Your task to perform on an android device: toggle sleep mode Image 0: 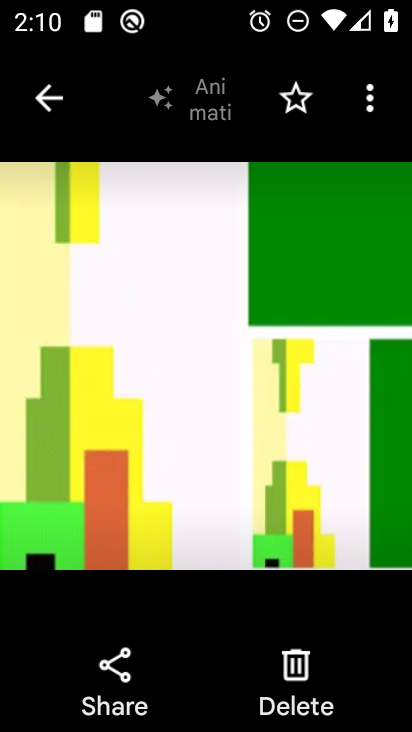
Step 0: press home button
Your task to perform on an android device: toggle sleep mode Image 1: 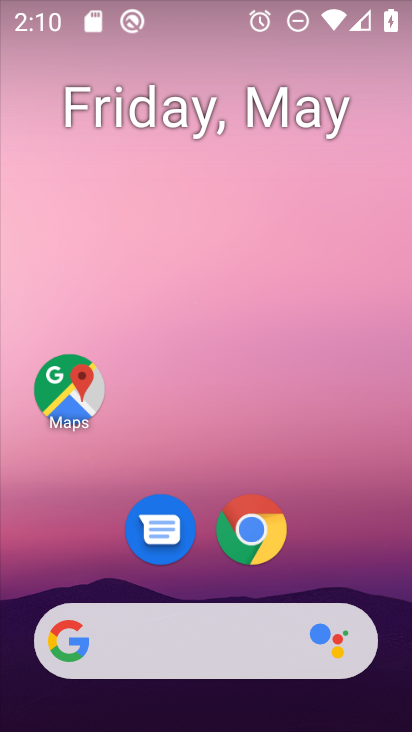
Step 1: drag from (402, 483) to (359, 188)
Your task to perform on an android device: toggle sleep mode Image 2: 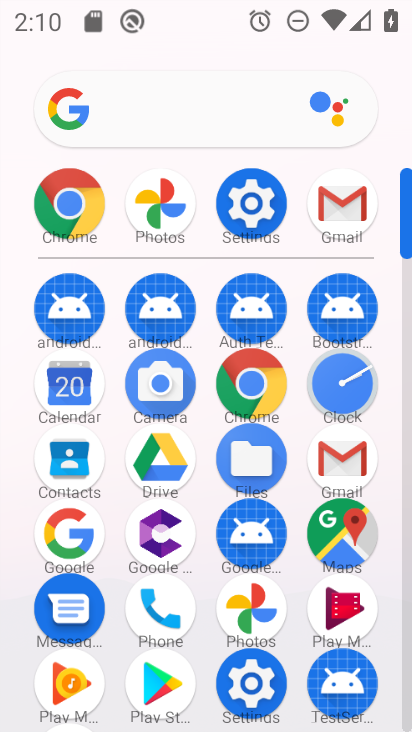
Step 2: click (251, 198)
Your task to perform on an android device: toggle sleep mode Image 3: 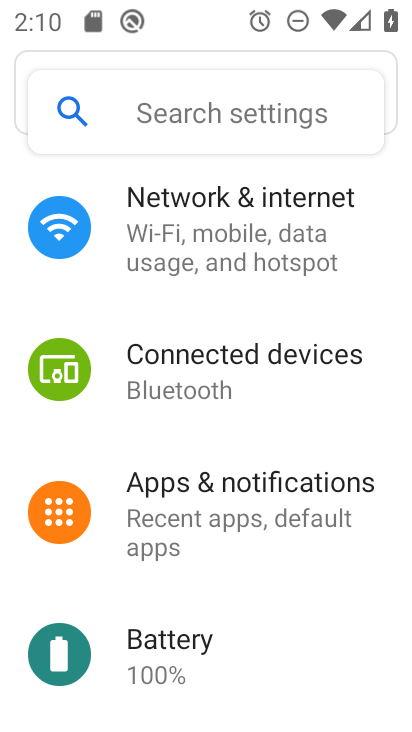
Step 3: drag from (265, 668) to (302, 349)
Your task to perform on an android device: toggle sleep mode Image 4: 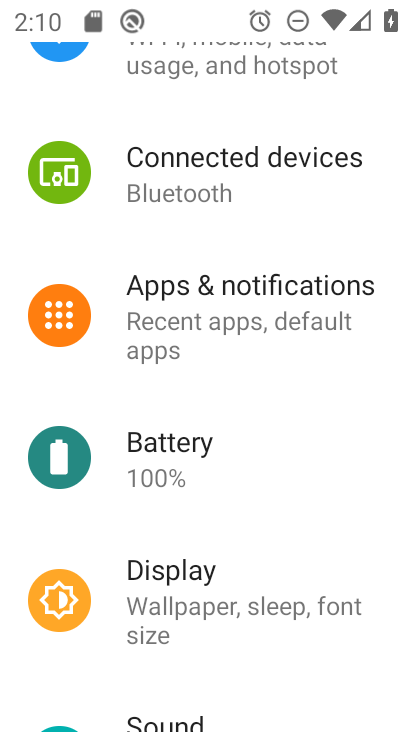
Step 4: click (178, 570)
Your task to perform on an android device: toggle sleep mode Image 5: 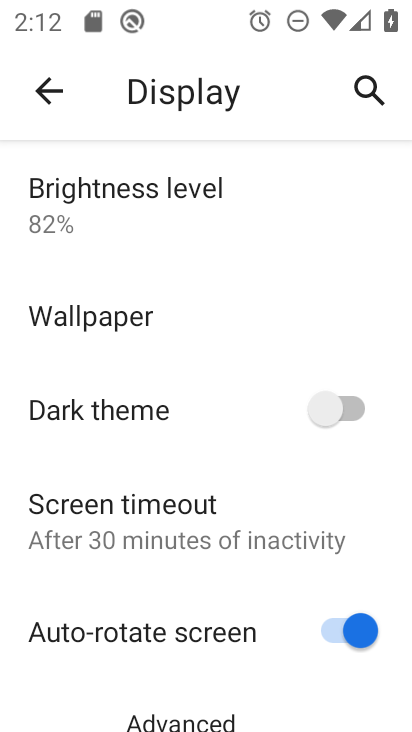
Step 5: click (126, 519)
Your task to perform on an android device: toggle sleep mode Image 6: 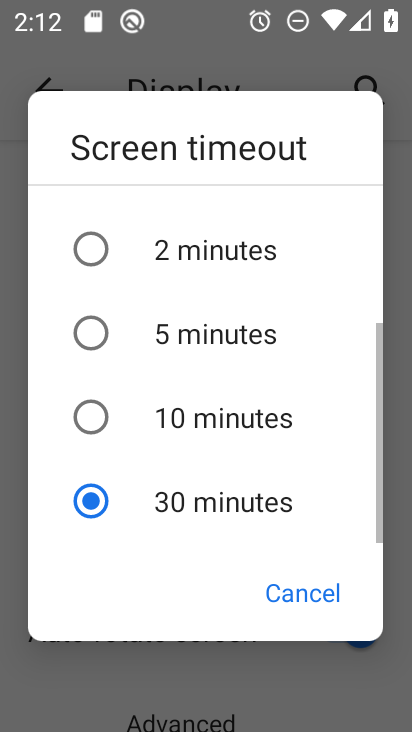
Step 6: click (98, 414)
Your task to perform on an android device: toggle sleep mode Image 7: 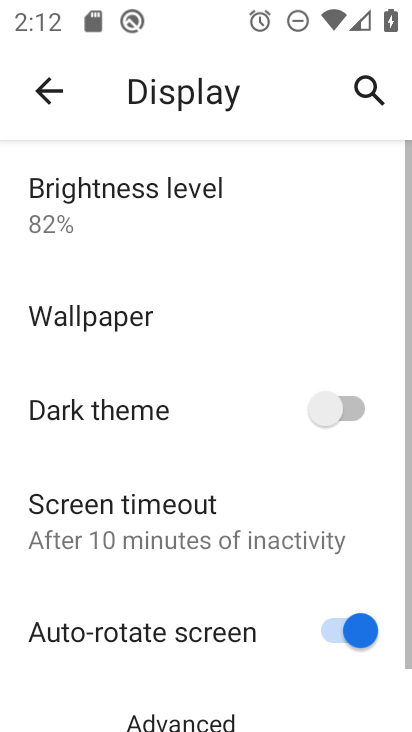
Step 7: task complete